Your task to perform on an android device: What is the recent news? Image 0: 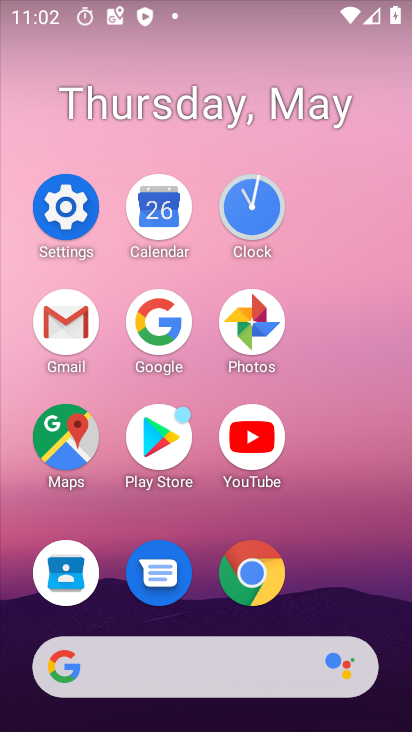
Step 0: click (168, 320)
Your task to perform on an android device: What is the recent news? Image 1: 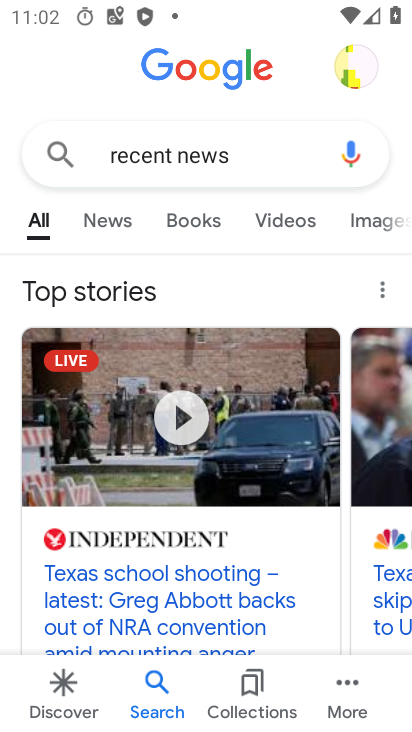
Step 1: task complete